Your task to perform on an android device: turn on javascript in the chrome app Image 0: 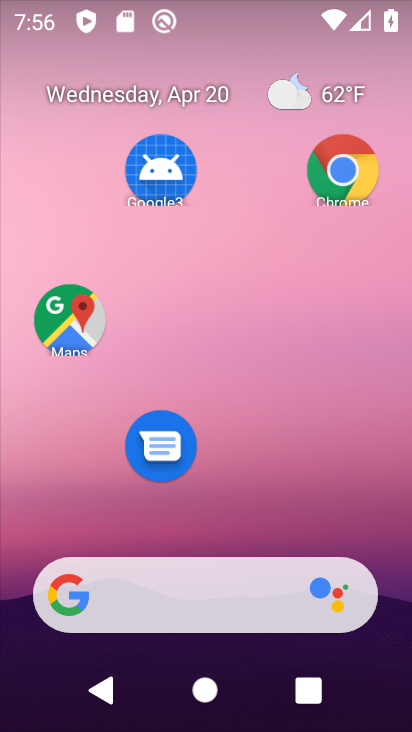
Step 0: click (345, 163)
Your task to perform on an android device: turn on javascript in the chrome app Image 1: 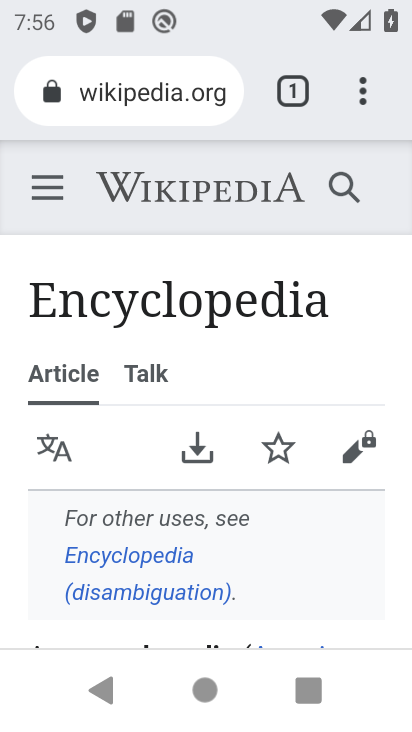
Step 1: click (360, 92)
Your task to perform on an android device: turn on javascript in the chrome app Image 2: 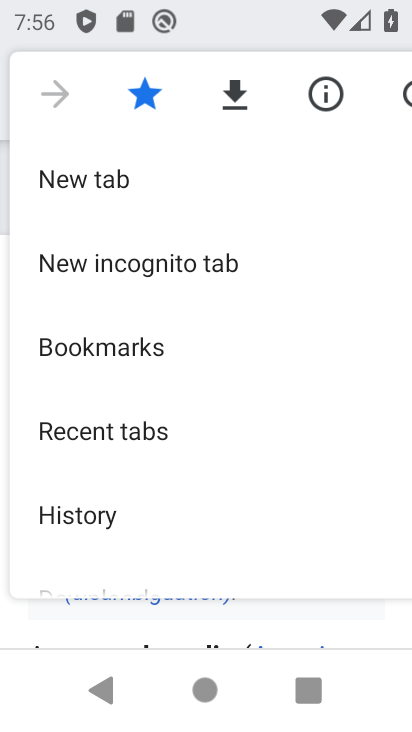
Step 2: drag from (159, 508) to (151, 384)
Your task to perform on an android device: turn on javascript in the chrome app Image 3: 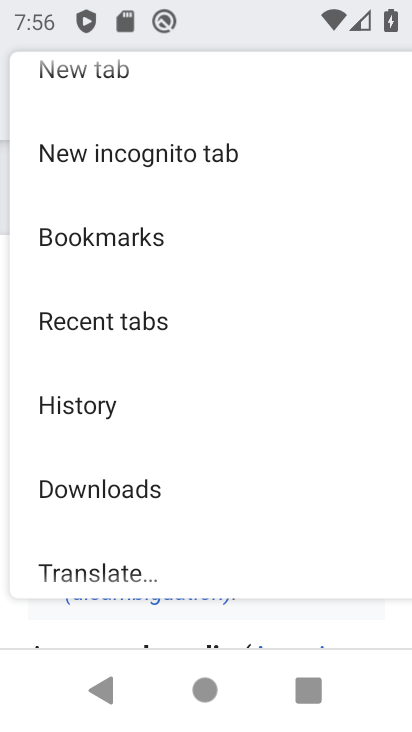
Step 3: drag from (233, 537) to (215, 150)
Your task to perform on an android device: turn on javascript in the chrome app Image 4: 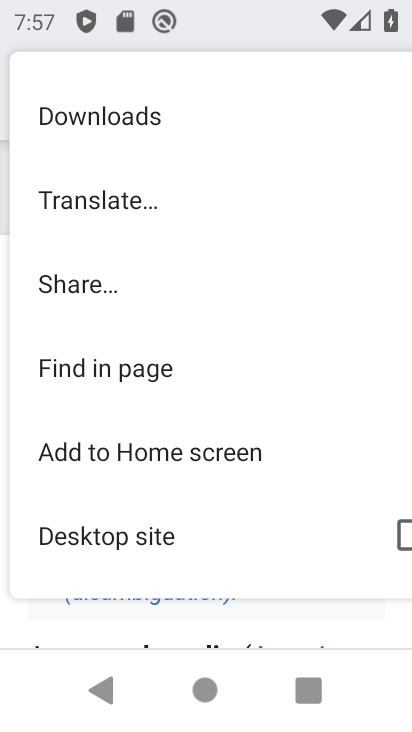
Step 4: drag from (187, 516) to (240, 41)
Your task to perform on an android device: turn on javascript in the chrome app Image 5: 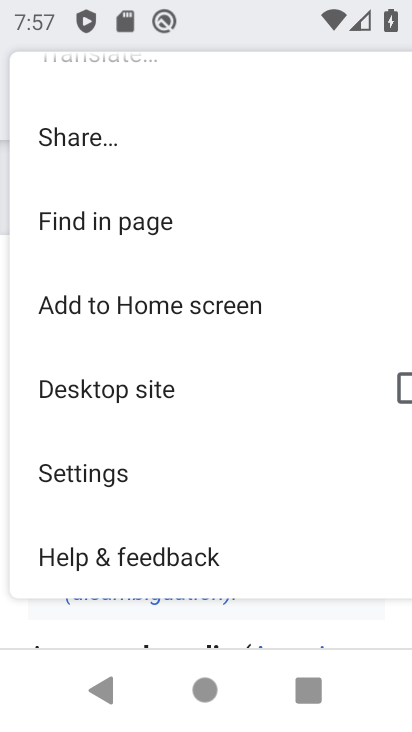
Step 5: click (84, 471)
Your task to perform on an android device: turn on javascript in the chrome app Image 6: 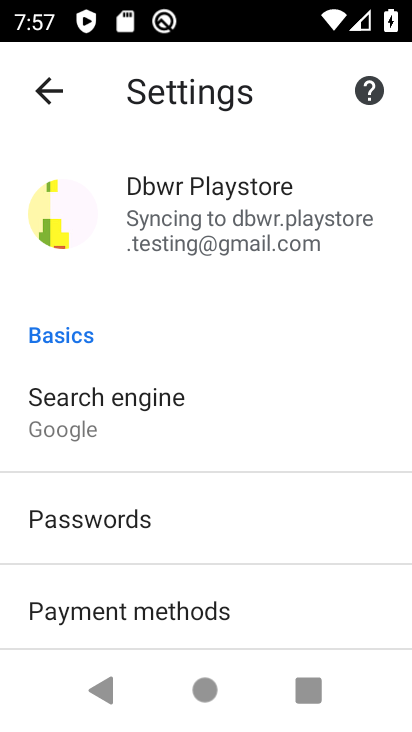
Step 6: drag from (189, 572) to (221, 154)
Your task to perform on an android device: turn on javascript in the chrome app Image 7: 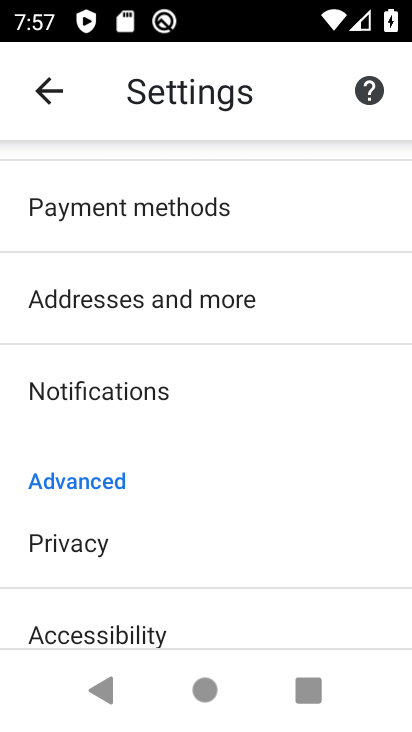
Step 7: drag from (215, 611) to (276, 10)
Your task to perform on an android device: turn on javascript in the chrome app Image 8: 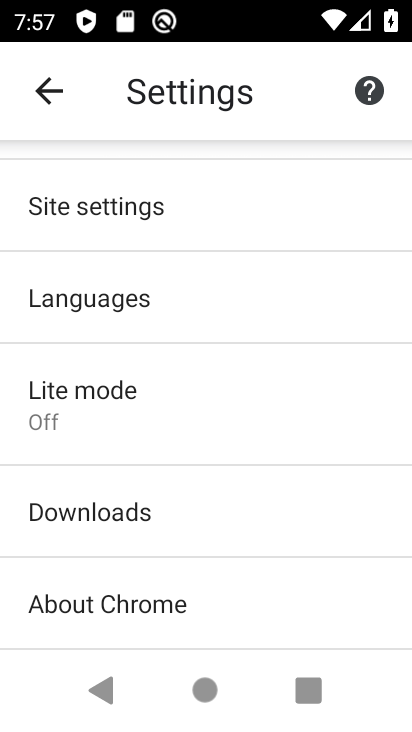
Step 8: drag from (225, 541) to (224, 336)
Your task to perform on an android device: turn on javascript in the chrome app Image 9: 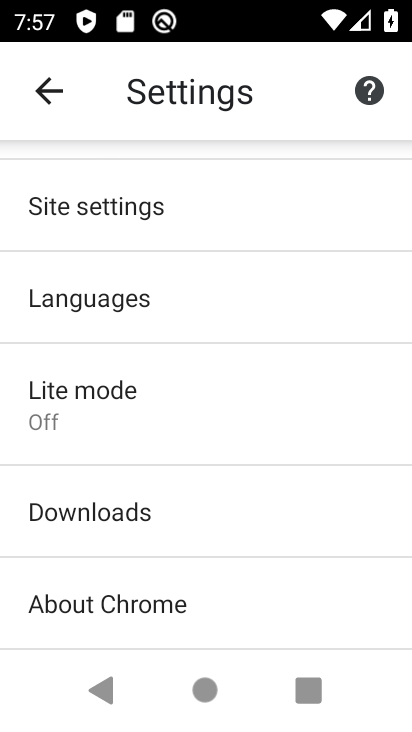
Step 9: click (93, 215)
Your task to perform on an android device: turn on javascript in the chrome app Image 10: 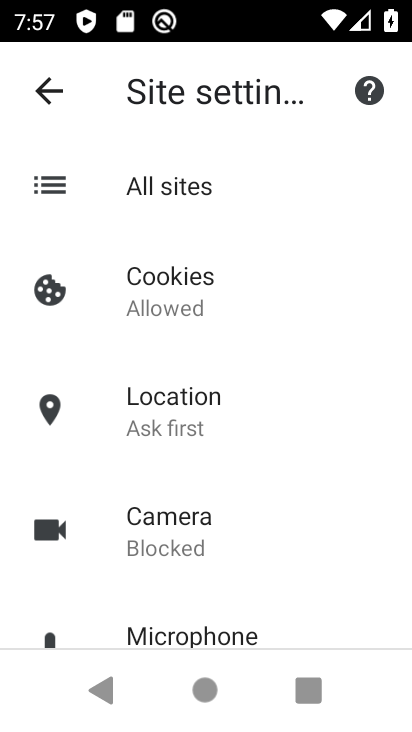
Step 10: drag from (270, 507) to (316, 116)
Your task to perform on an android device: turn on javascript in the chrome app Image 11: 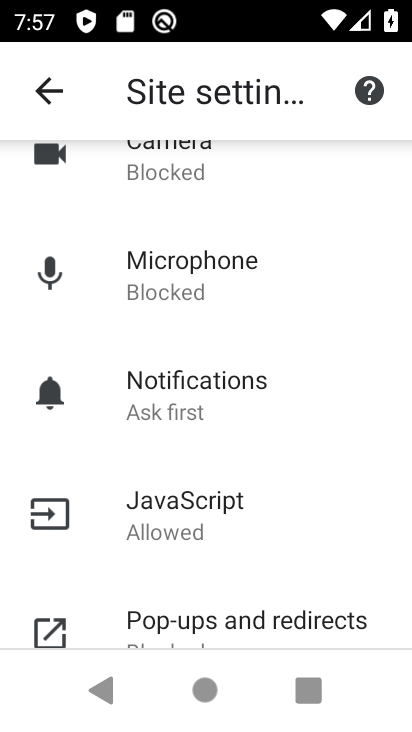
Step 11: click (194, 494)
Your task to perform on an android device: turn on javascript in the chrome app Image 12: 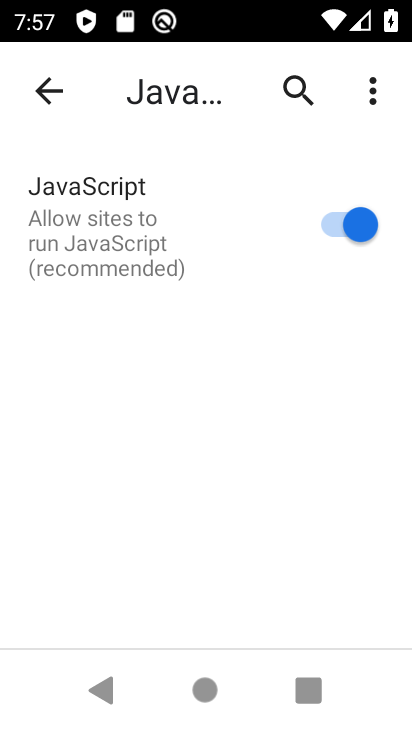
Step 12: task complete